Your task to perform on an android device: Open Youtube and go to the subscriptions tab Image 0: 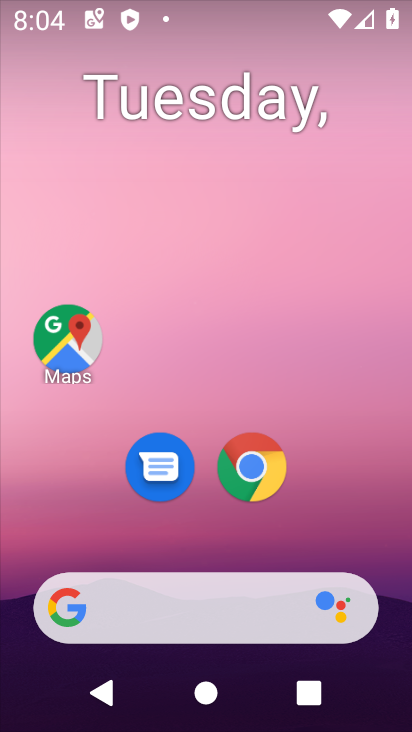
Step 0: drag from (367, 504) to (283, 224)
Your task to perform on an android device: Open Youtube and go to the subscriptions tab Image 1: 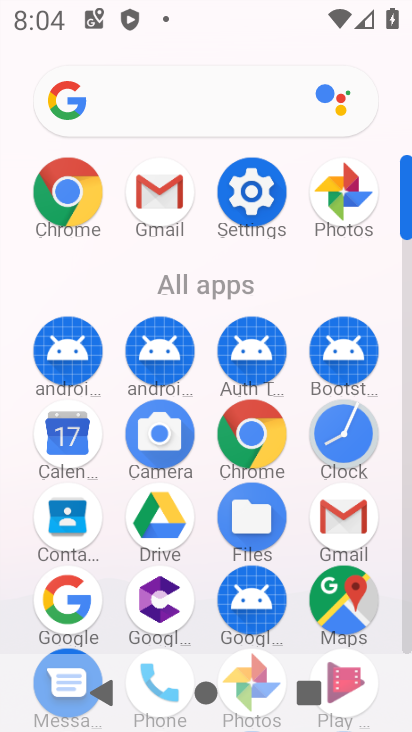
Step 1: click (407, 651)
Your task to perform on an android device: Open Youtube and go to the subscriptions tab Image 2: 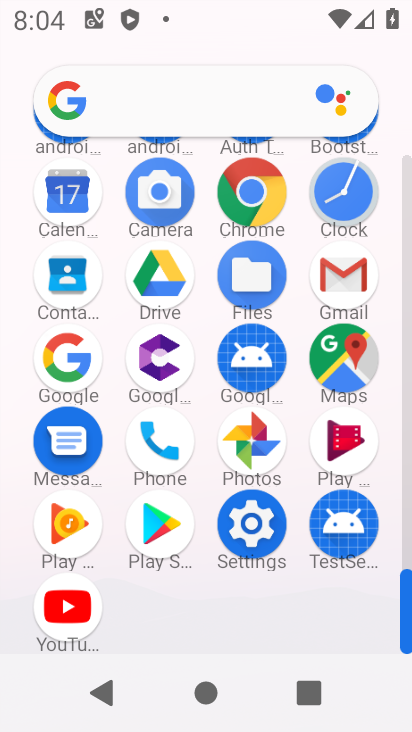
Step 2: click (60, 607)
Your task to perform on an android device: Open Youtube and go to the subscriptions tab Image 3: 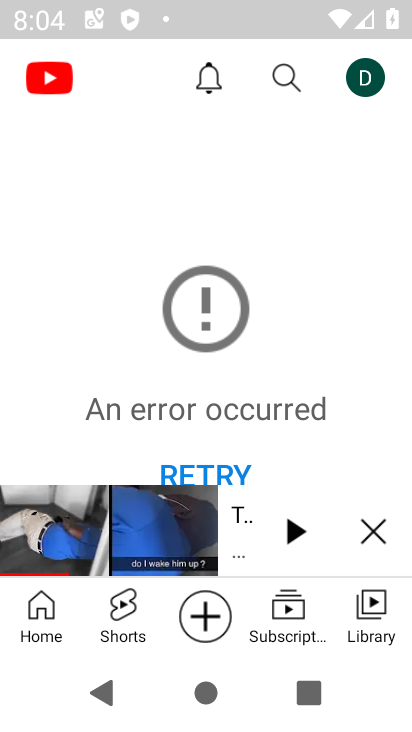
Step 3: click (279, 631)
Your task to perform on an android device: Open Youtube and go to the subscriptions tab Image 4: 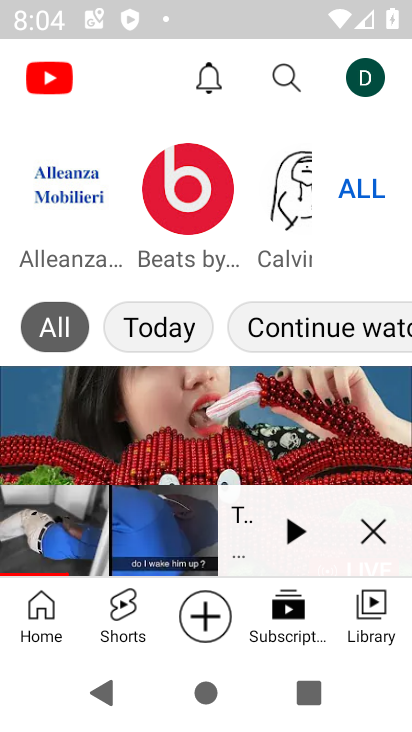
Step 4: task complete